Your task to perform on an android device: toggle priority inbox in the gmail app Image 0: 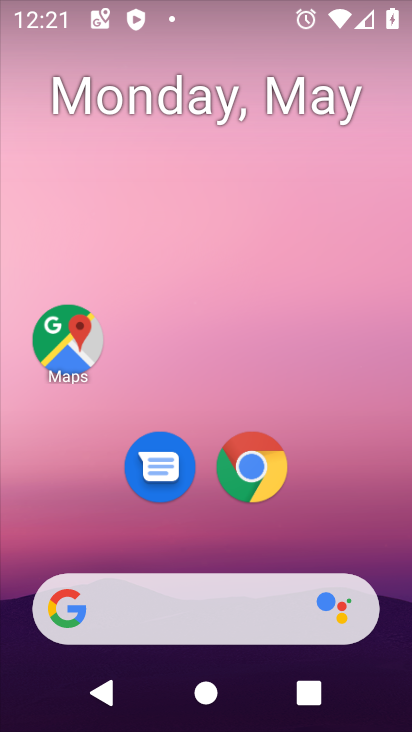
Step 0: drag from (391, 612) to (314, 203)
Your task to perform on an android device: toggle priority inbox in the gmail app Image 1: 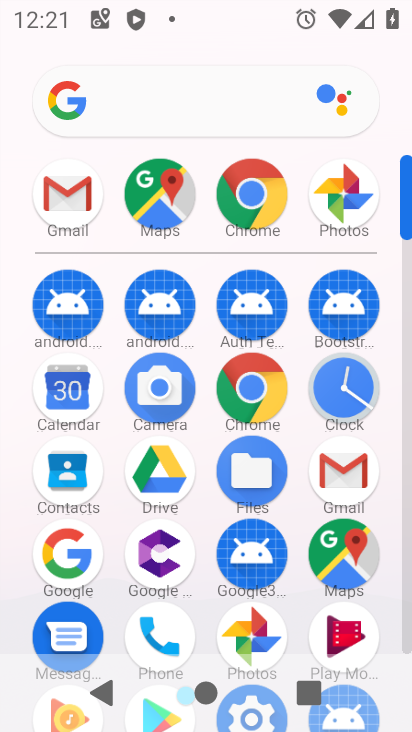
Step 1: click (355, 480)
Your task to perform on an android device: toggle priority inbox in the gmail app Image 2: 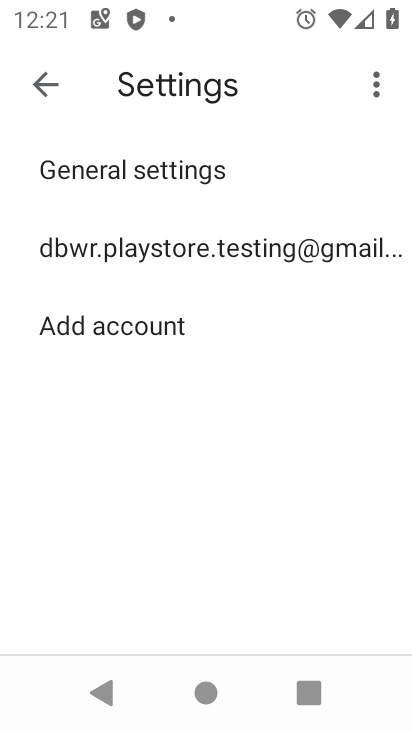
Step 2: click (300, 261)
Your task to perform on an android device: toggle priority inbox in the gmail app Image 3: 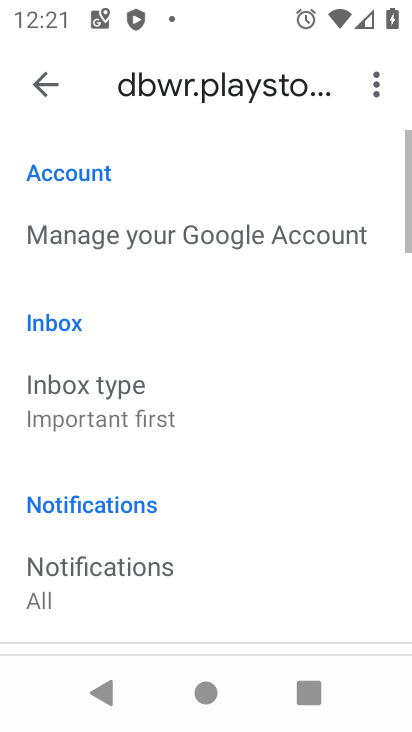
Step 3: click (125, 405)
Your task to perform on an android device: toggle priority inbox in the gmail app Image 4: 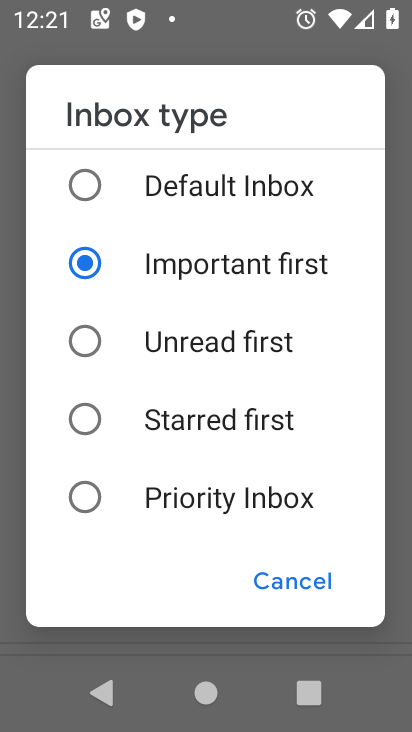
Step 4: click (96, 189)
Your task to perform on an android device: toggle priority inbox in the gmail app Image 5: 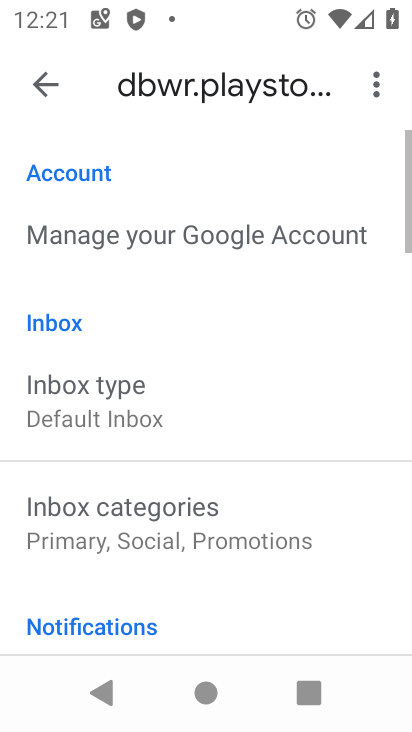
Step 5: task complete